Your task to perform on an android device: toggle wifi Image 0: 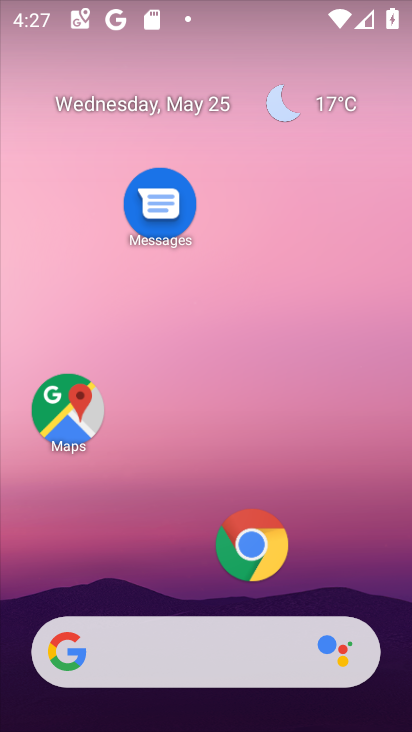
Step 0: drag from (350, 576) to (341, 226)
Your task to perform on an android device: toggle wifi Image 1: 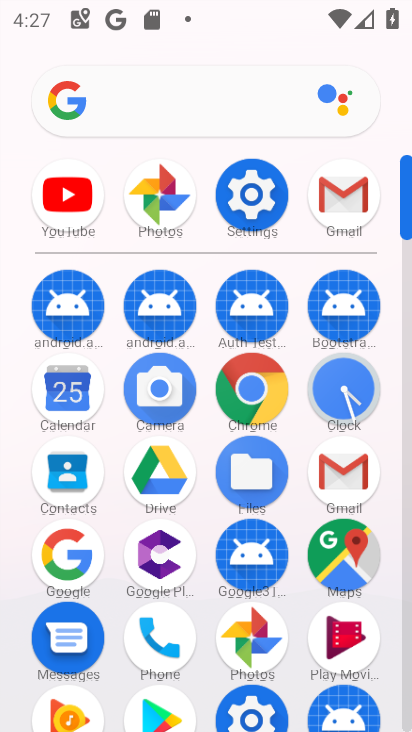
Step 1: click (251, 190)
Your task to perform on an android device: toggle wifi Image 2: 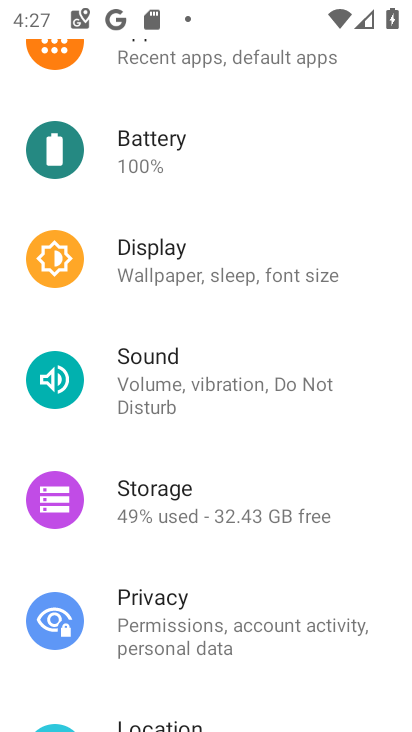
Step 2: drag from (277, 134) to (97, 613)
Your task to perform on an android device: toggle wifi Image 3: 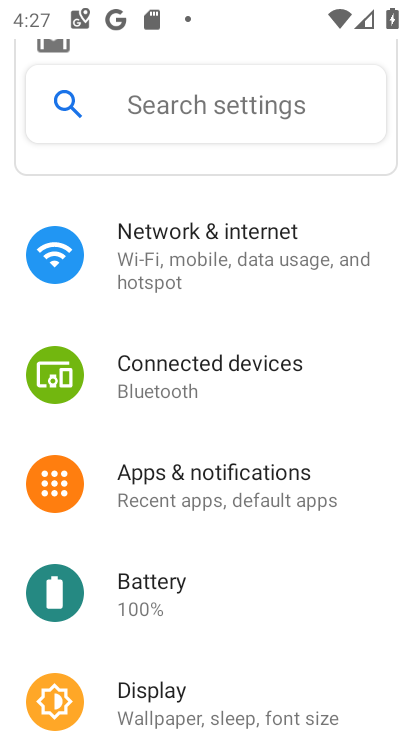
Step 3: click (172, 258)
Your task to perform on an android device: toggle wifi Image 4: 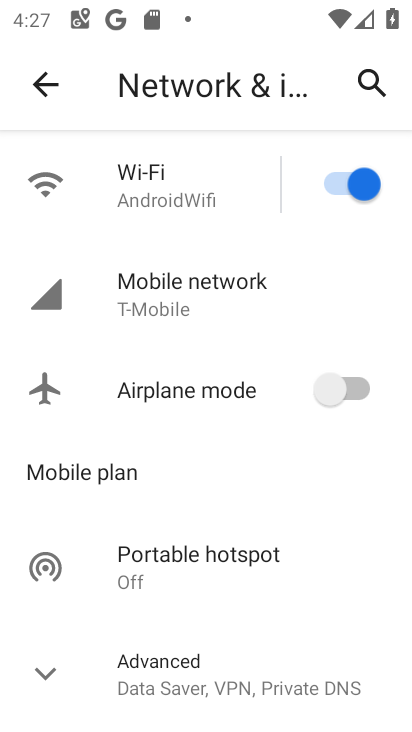
Step 4: click (344, 186)
Your task to perform on an android device: toggle wifi Image 5: 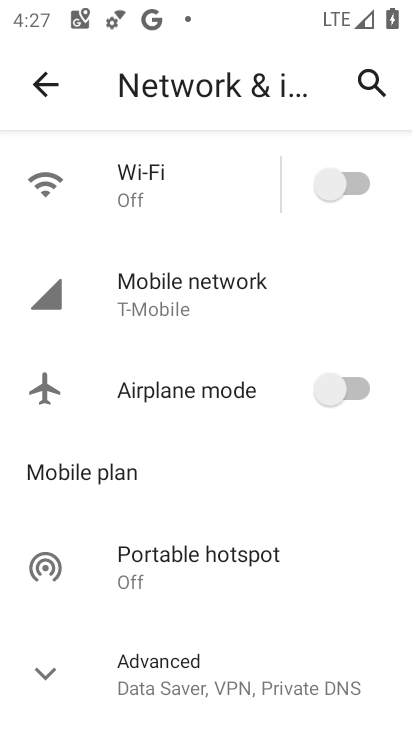
Step 5: task complete